Your task to perform on an android device: install app "Indeed Job Search" Image 0: 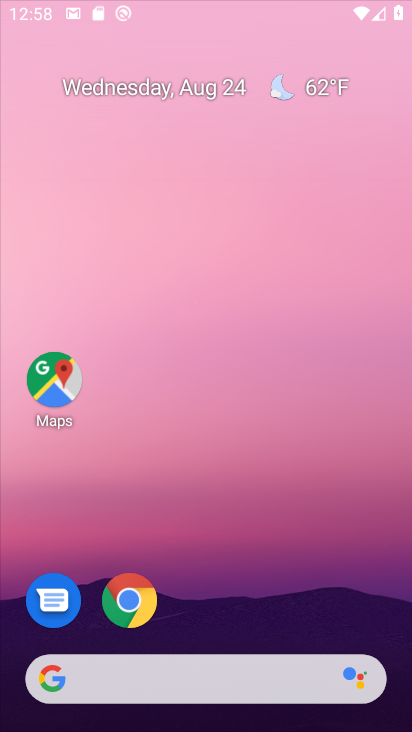
Step 0: drag from (238, 646) to (208, 21)
Your task to perform on an android device: install app "Indeed Job Search" Image 1: 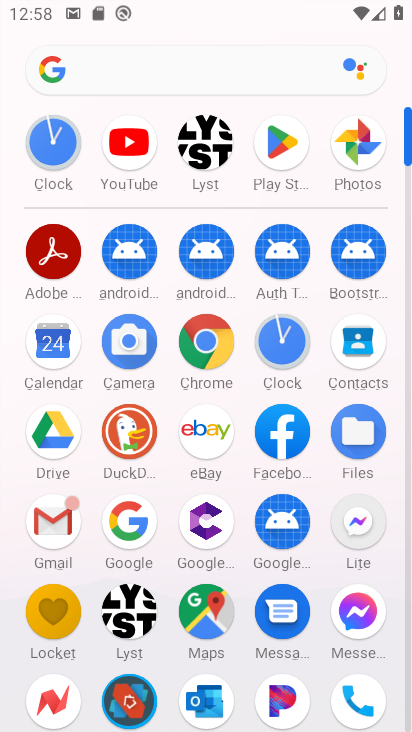
Step 1: click (288, 163)
Your task to perform on an android device: install app "Indeed Job Search" Image 2: 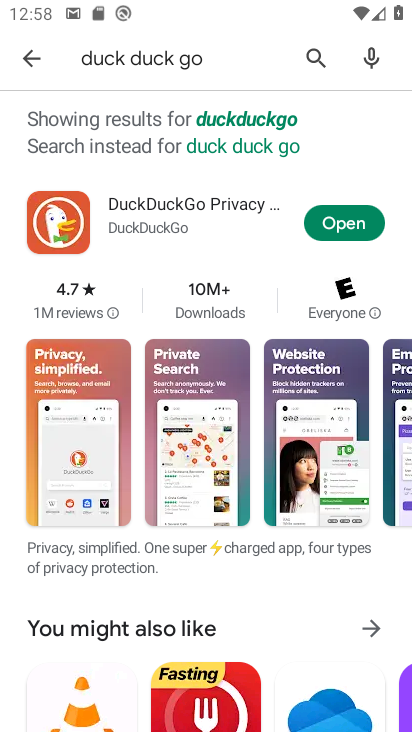
Step 2: click (320, 86)
Your task to perform on an android device: install app "Indeed Job Search" Image 3: 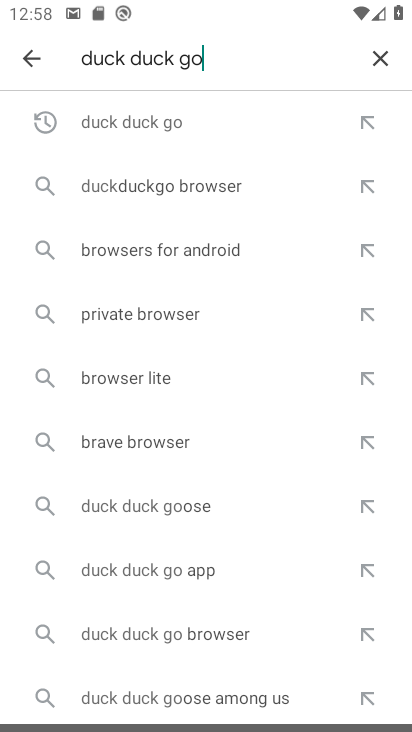
Step 3: click (320, 80)
Your task to perform on an android device: install app "Indeed Job Search" Image 4: 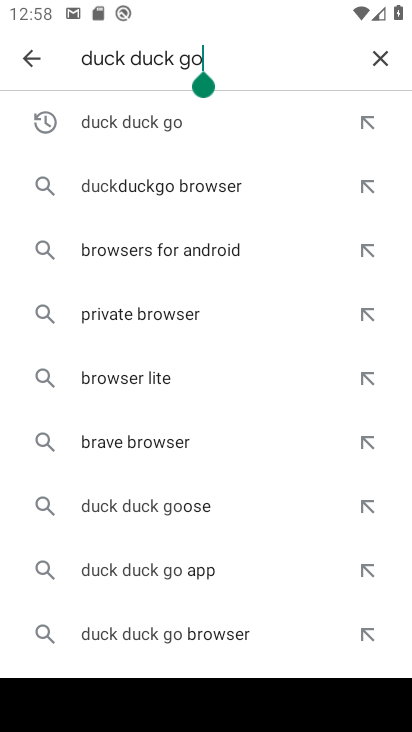
Step 4: click (378, 62)
Your task to perform on an android device: install app "Indeed Job Search" Image 5: 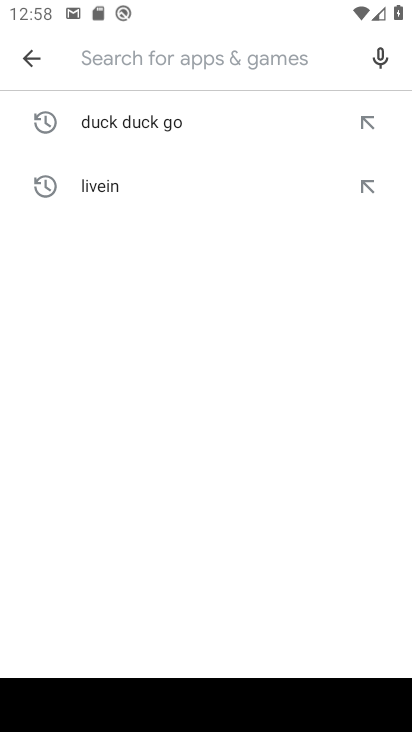
Step 5: type "indeed"
Your task to perform on an android device: install app "Indeed Job Search" Image 6: 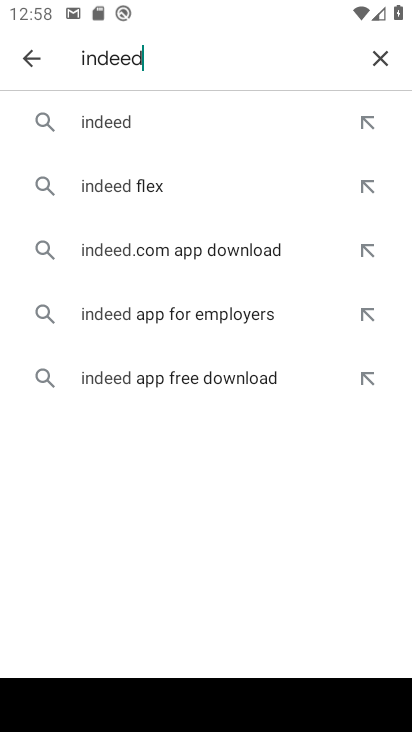
Step 6: click (166, 120)
Your task to perform on an android device: install app "Indeed Job Search" Image 7: 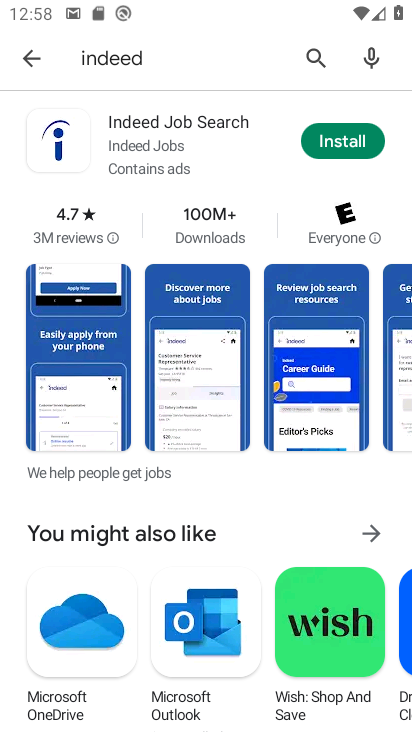
Step 7: click (325, 141)
Your task to perform on an android device: install app "Indeed Job Search" Image 8: 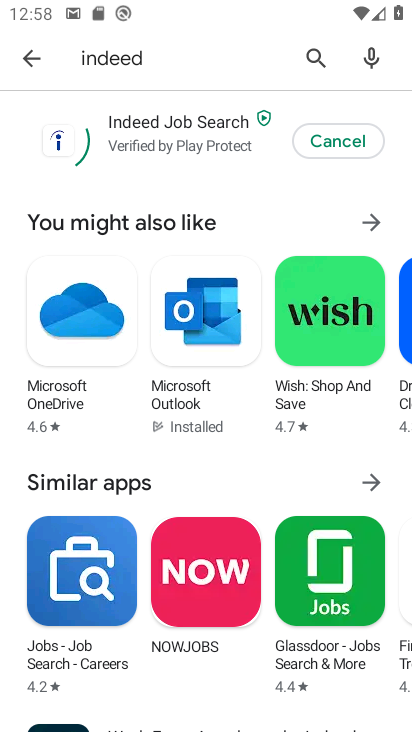
Step 8: task complete